Your task to perform on an android device: open app "Pinterest" (install if not already installed) Image 0: 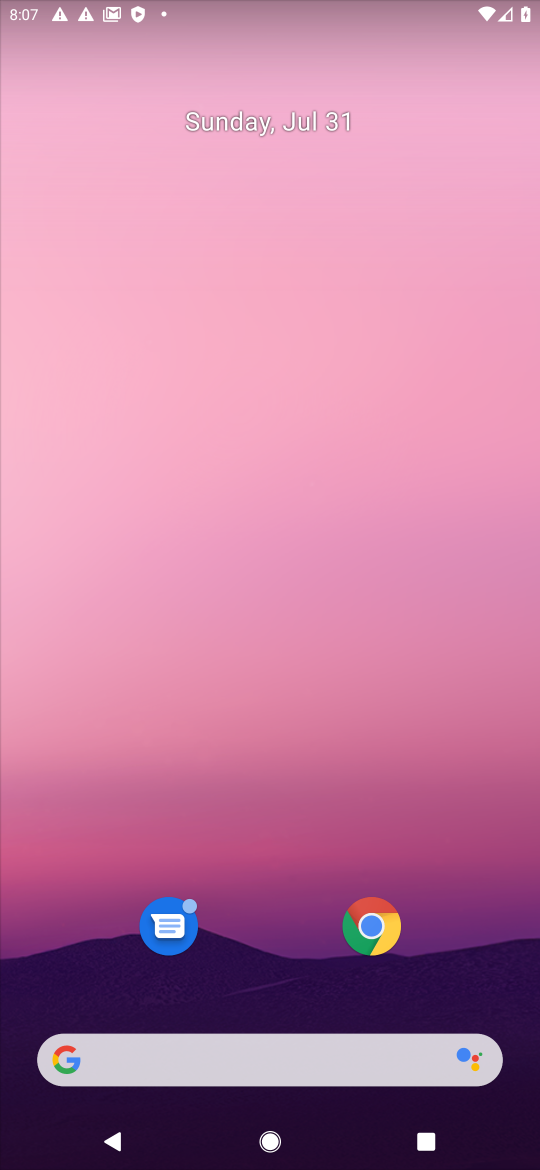
Step 0: drag from (263, 926) to (382, 97)
Your task to perform on an android device: open app "Pinterest" (install if not already installed) Image 1: 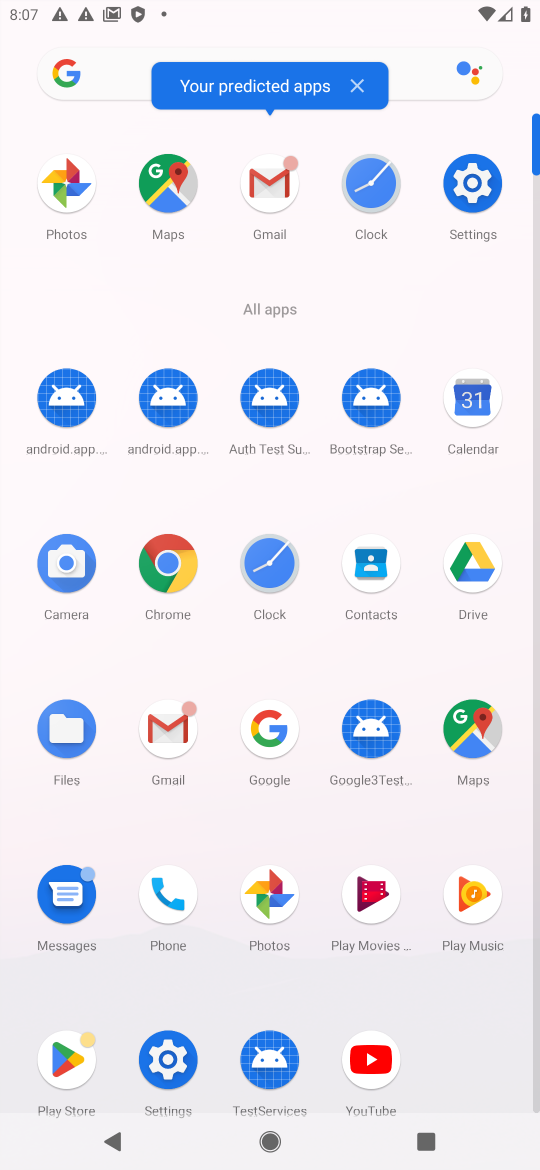
Step 1: click (62, 1053)
Your task to perform on an android device: open app "Pinterest" (install if not already installed) Image 2: 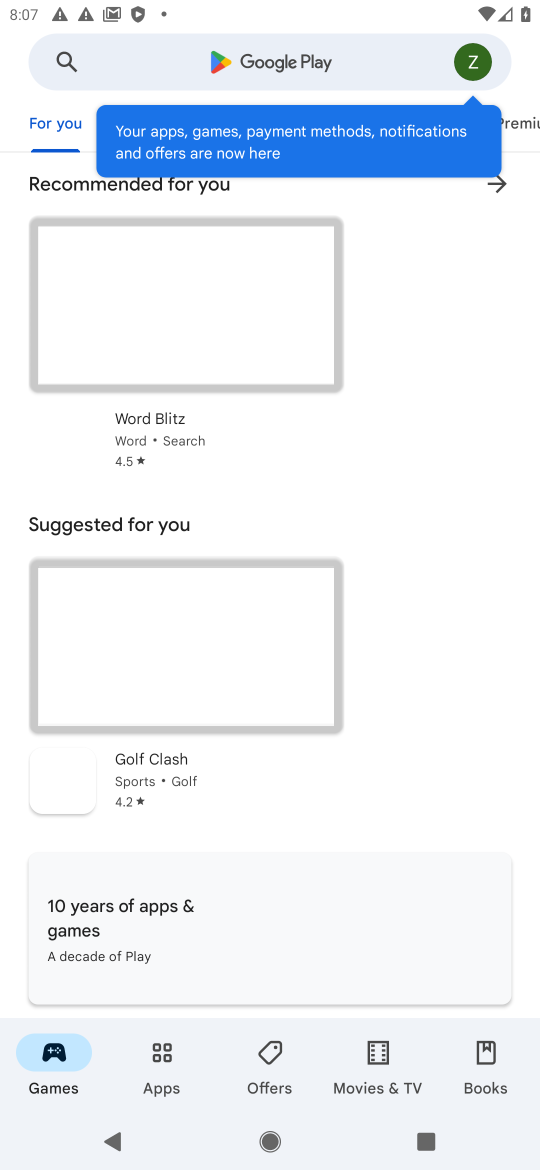
Step 2: click (253, 71)
Your task to perform on an android device: open app "Pinterest" (install if not already installed) Image 3: 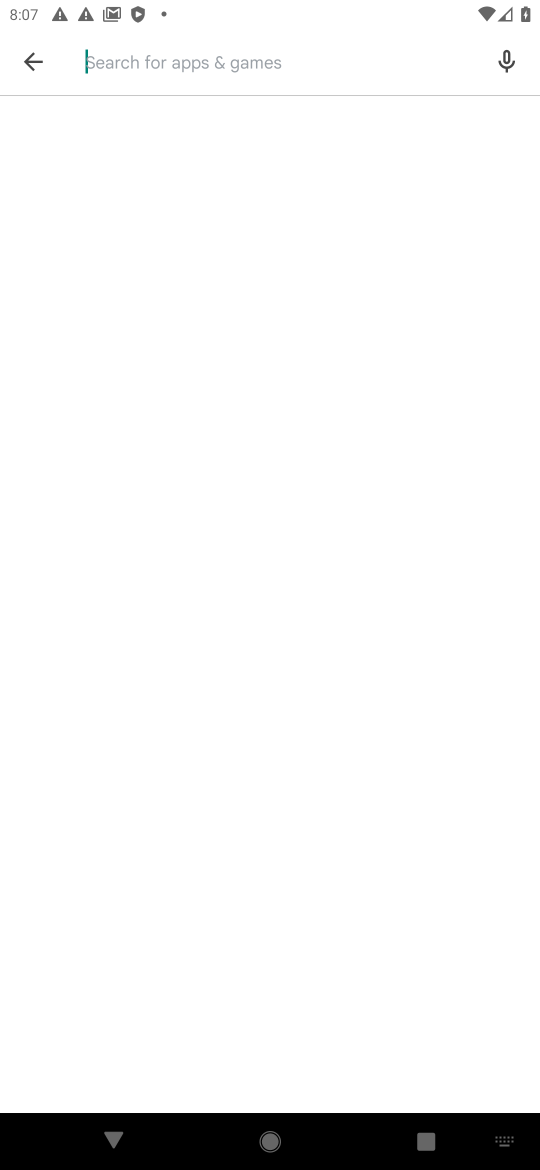
Step 3: type "pinterest"
Your task to perform on an android device: open app "Pinterest" (install if not already installed) Image 4: 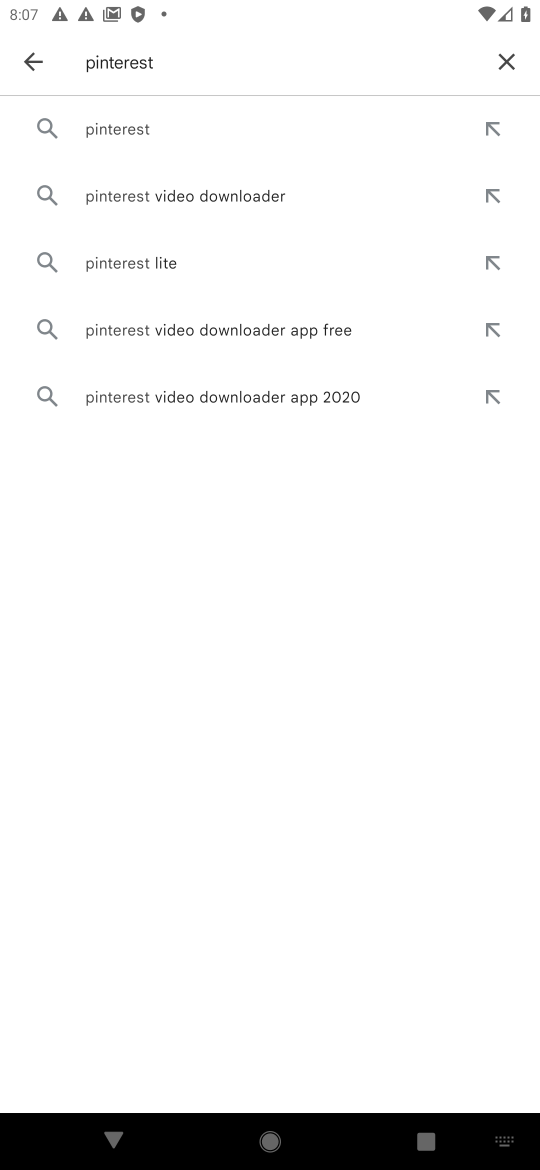
Step 4: click (112, 125)
Your task to perform on an android device: open app "Pinterest" (install if not already installed) Image 5: 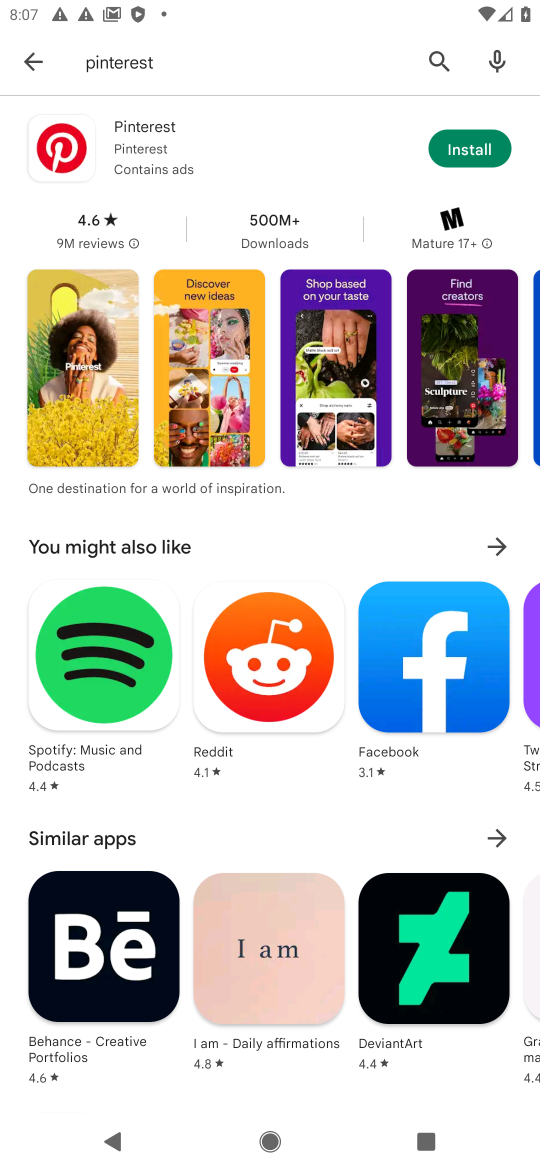
Step 5: click (489, 145)
Your task to perform on an android device: open app "Pinterest" (install if not already installed) Image 6: 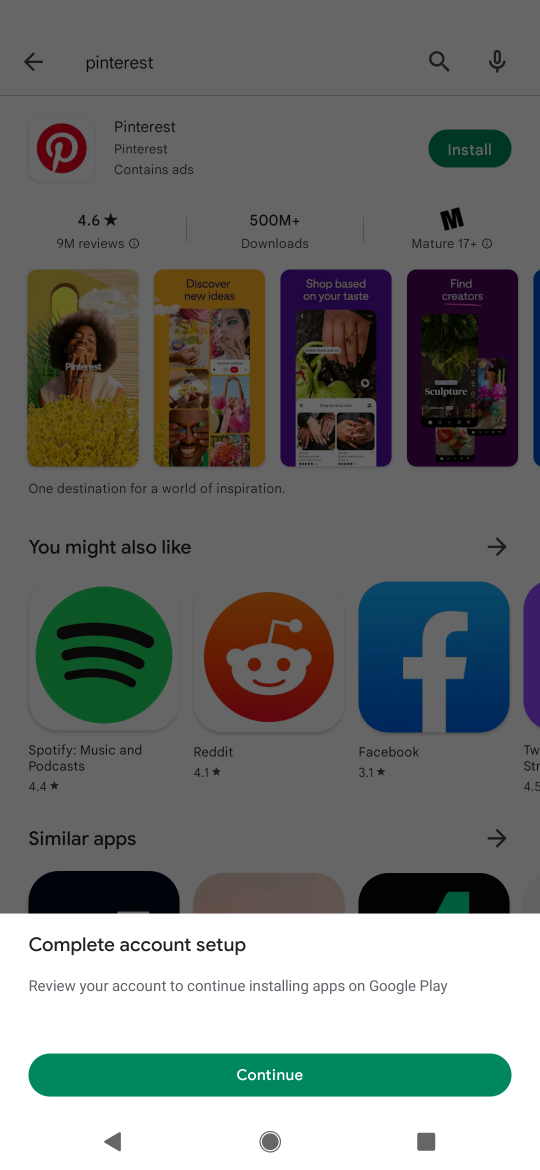
Step 6: click (232, 1086)
Your task to perform on an android device: open app "Pinterest" (install if not already installed) Image 7: 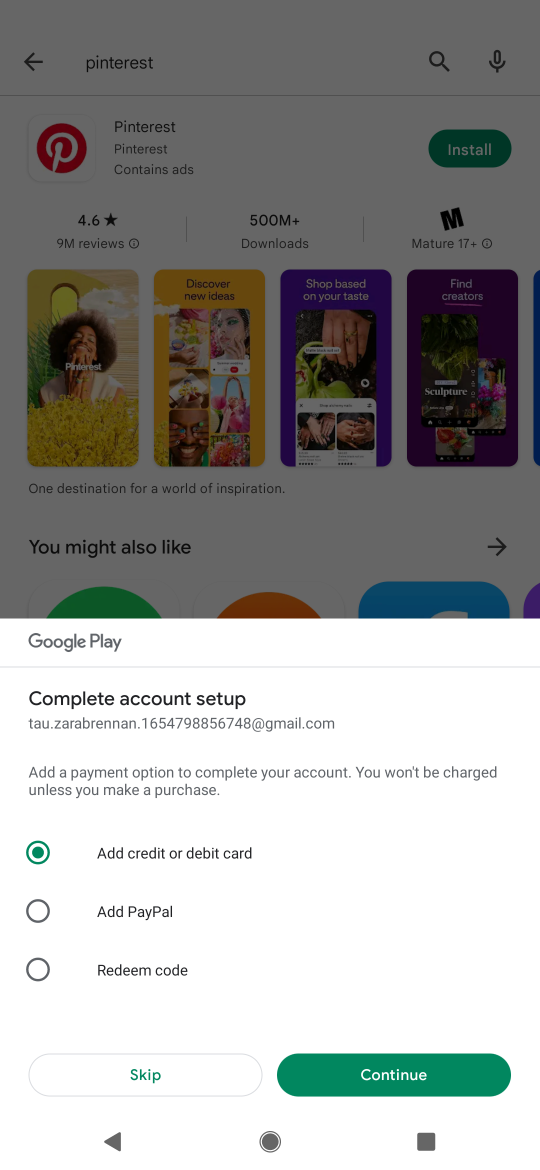
Step 7: click (125, 1082)
Your task to perform on an android device: open app "Pinterest" (install if not already installed) Image 8: 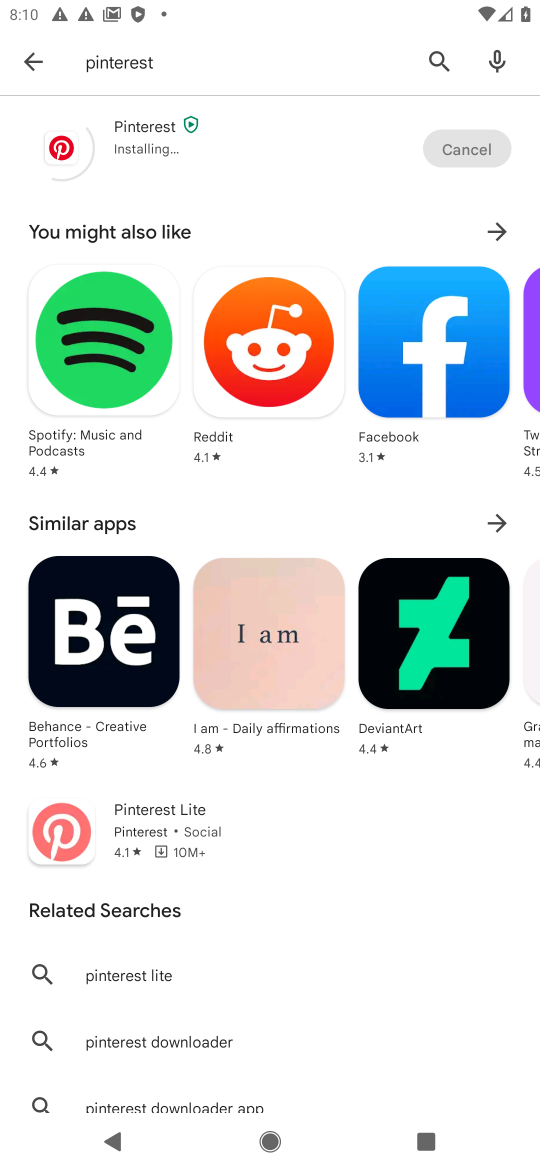
Step 8: click (36, 72)
Your task to perform on an android device: open app "Pinterest" (install if not already installed) Image 9: 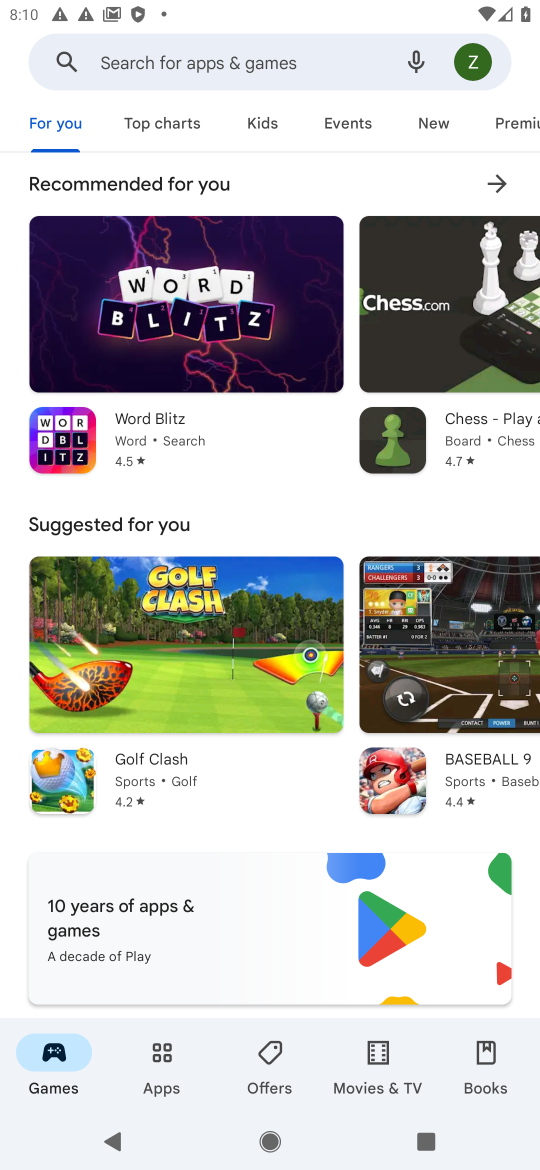
Step 9: click (300, 53)
Your task to perform on an android device: open app "Pinterest" (install if not already installed) Image 10: 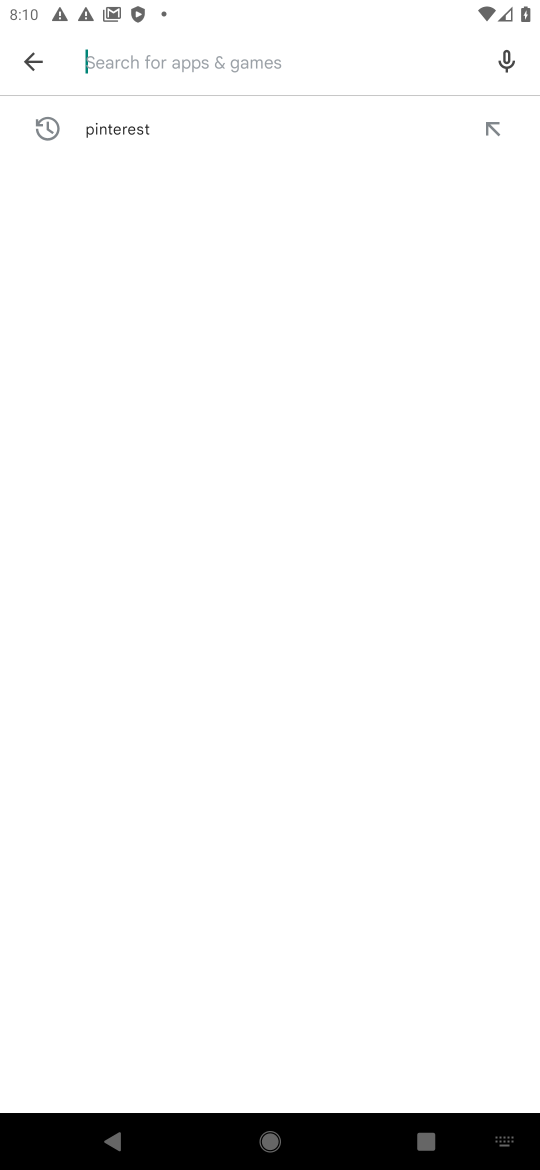
Step 10: click (119, 155)
Your task to perform on an android device: open app "Pinterest" (install if not already installed) Image 11: 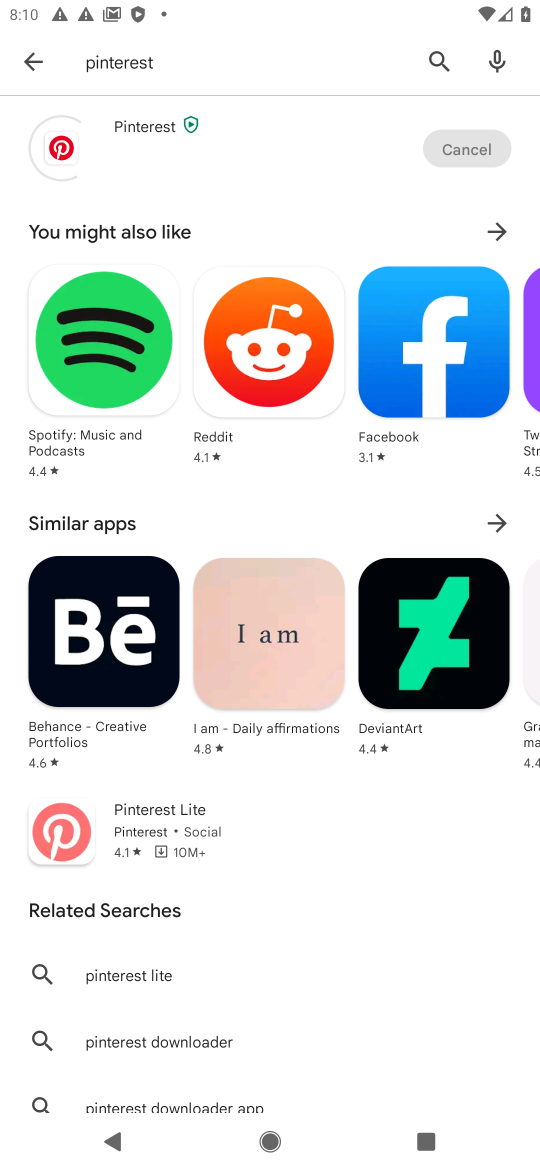
Step 11: click (120, 131)
Your task to perform on an android device: open app "Pinterest" (install if not already installed) Image 12: 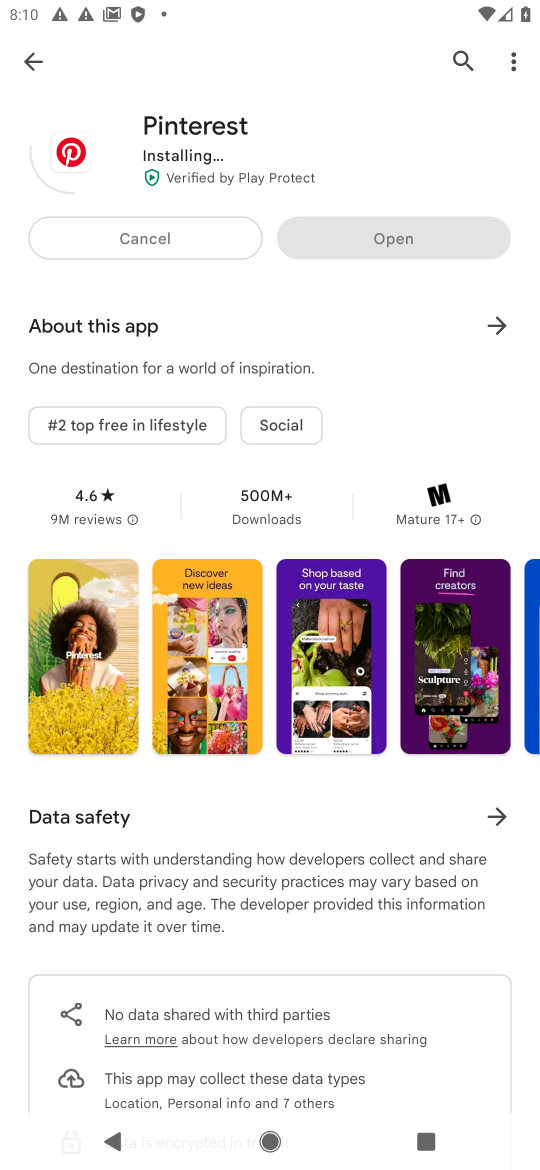
Step 12: click (28, 58)
Your task to perform on an android device: open app "Pinterest" (install if not already installed) Image 13: 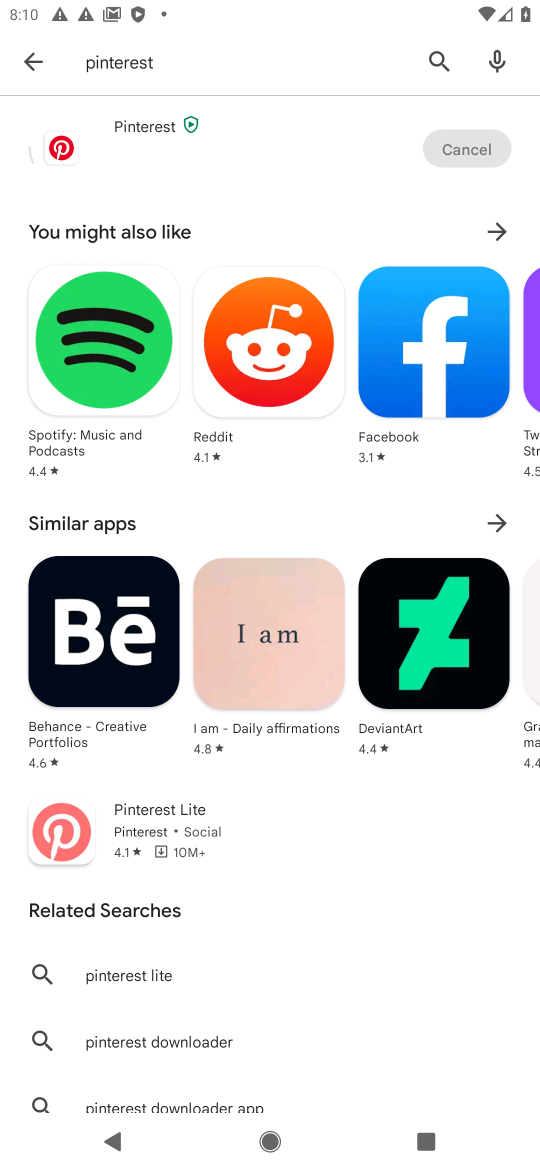
Step 13: click (26, 51)
Your task to perform on an android device: open app "Pinterest" (install if not already installed) Image 14: 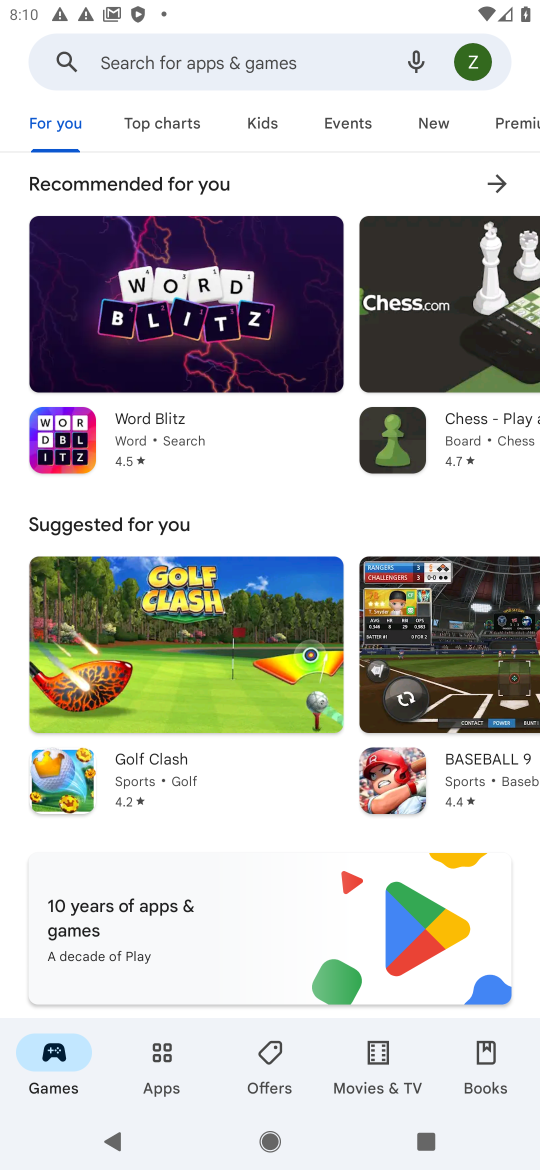
Step 14: task complete